Your task to perform on an android device: open app "Expedia: Hotels, Flights & Car" (install if not already installed) Image 0: 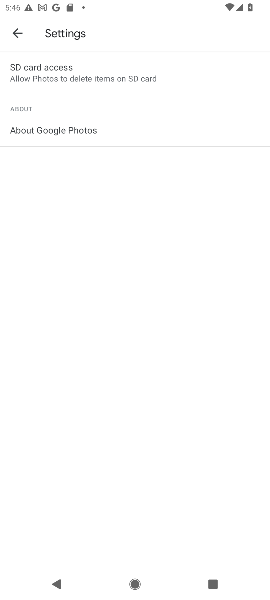
Step 0: press home button
Your task to perform on an android device: open app "Expedia: Hotels, Flights & Car" (install if not already installed) Image 1: 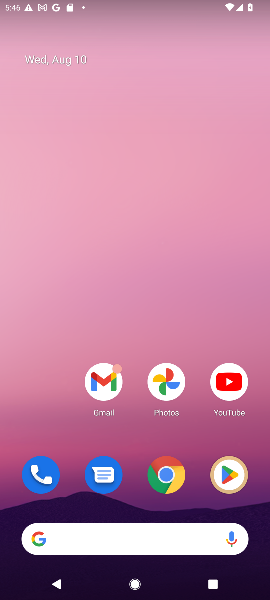
Step 1: drag from (147, 527) to (168, 159)
Your task to perform on an android device: open app "Expedia: Hotels, Flights & Car" (install if not already installed) Image 2: 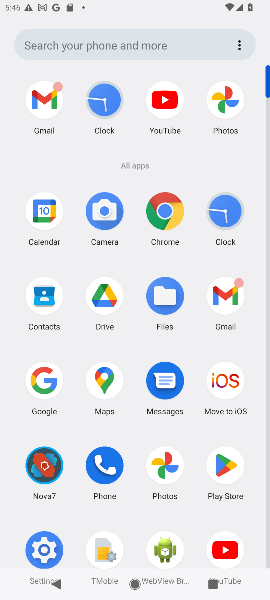
Step 2: click (231, 463)
Your task to perform on an android device: open app "Expedia: Hotels, Flights & Car" (install if not already installed) Image 3: 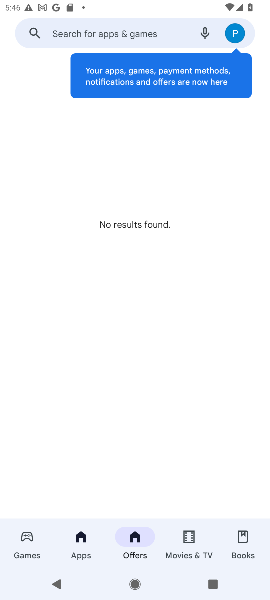
Step 3: click (118, 36)
Your task to perform on an android device: open app "Expedia: Hotels, Flights & Car" (install if not already installed) Image 4: 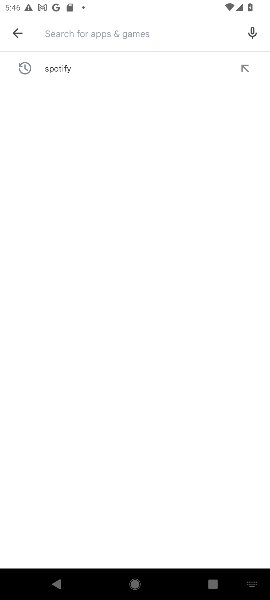
Step 4: type "Expedia: Hotels, Flights & Car"
Your task to perform on an android device: open app "Expedia: Hotels, Flights & Car" (install if not already installed) Image 5: 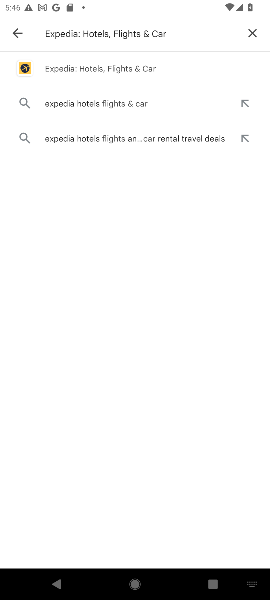
Step 5: click (115, 67)
Your task to perform on an android device: open app "Expedia: Hotels, Flights & Car" (install if not already installed) Image 6: 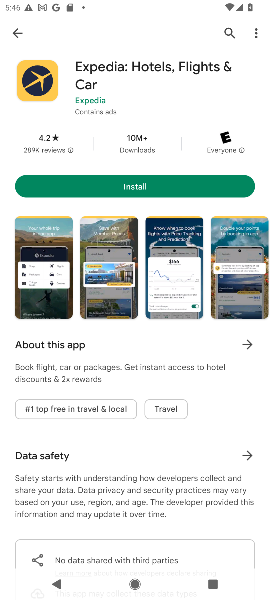
Step 6: click (152, 191)
Your task to perform on an android device: open app "Expedia: Hotels, Flights & Car" (install if not already installed) Image 7: 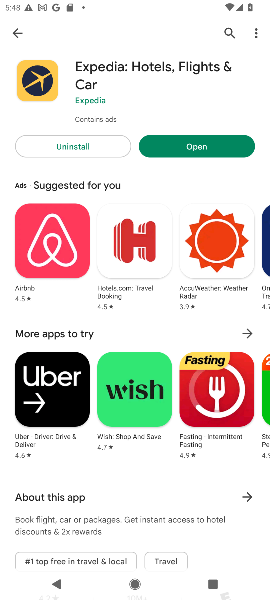
Step 7: click (178, 149)
Your task to perform on an android device: open app "Expedia: Hotels, Flights & Car" (install if not already installed) Image 8: 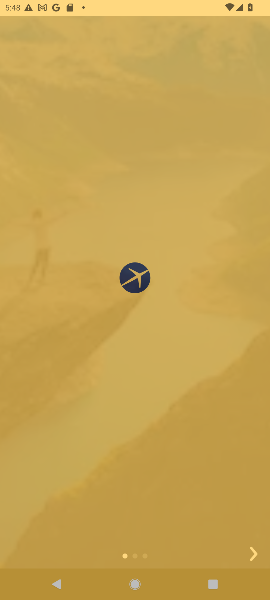
Step 8: task complete